Your task to perform on an android device: turn off smart reply in the gmail app Image 0: 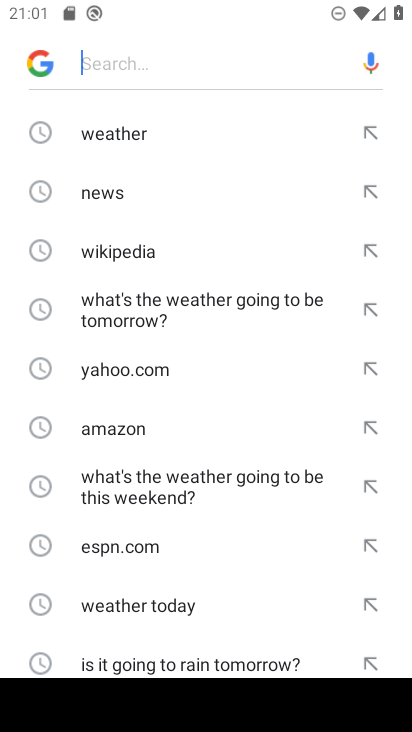
Step 0: press home button
Your task to perform on an android device: turn off smart reply in the gmail app Image 1: 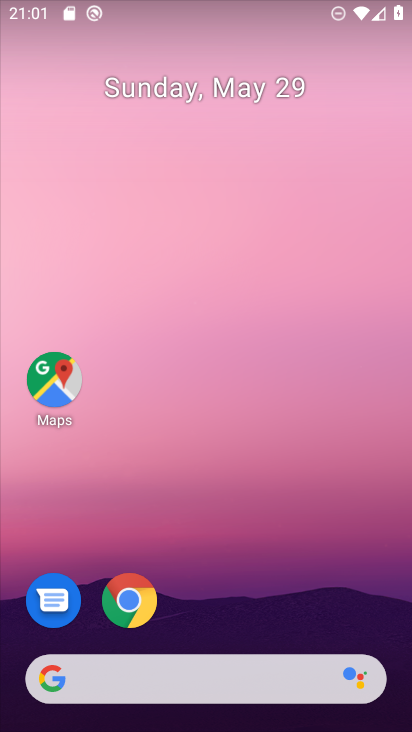
Step 1: drag from (306, 544) to (301, 91)
Your task to perform on an android device: turn off smart reply in the gmail app Image 2: 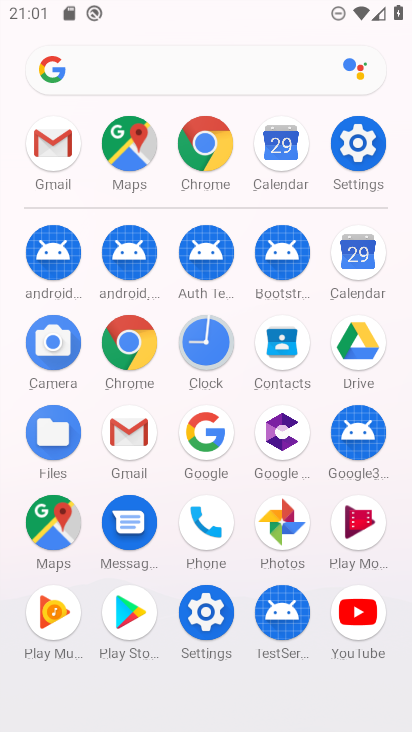
Step 2: click (108, 446)
Your task to perform on an android device: turn off smart reply in the gmail app Image 3: 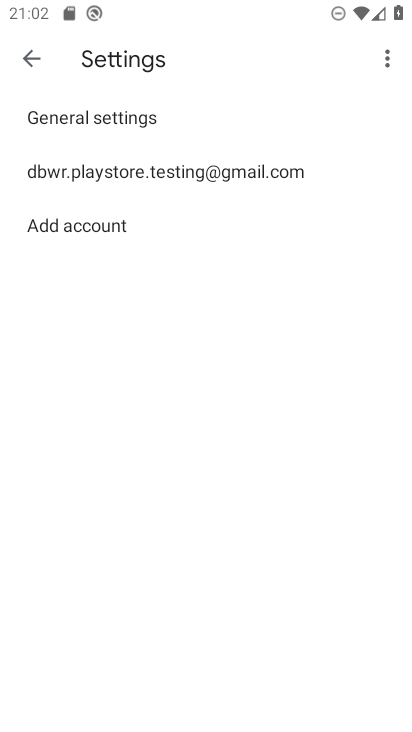
Step 3: click (239, 166)
Your task to perform on an android device: turn off smart reply in the gmail app Image 4: 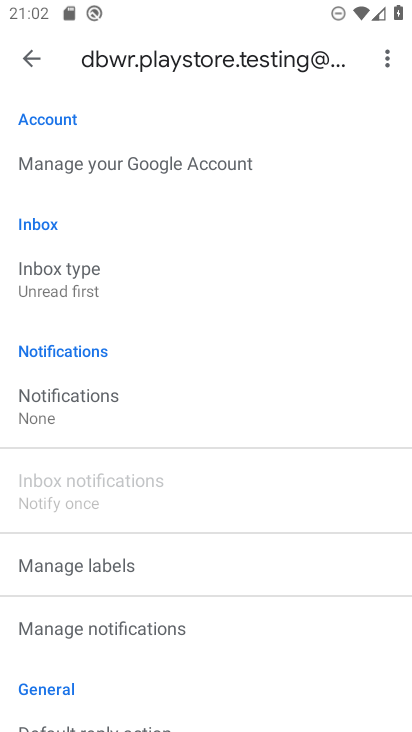
Step 4: drag from (230, 654) to (226, 348)
Your task to perform on an android device: turn off smart reply in the gmail app Image 5: 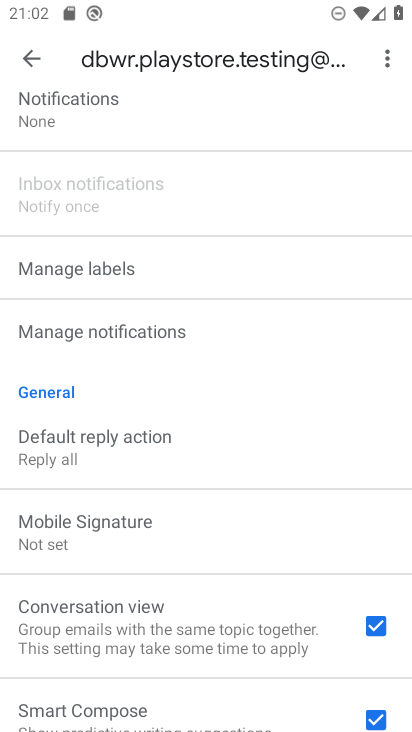
Step 5: drag from (226, 646) to (237, 300)
Your task to perform on an android device: turn off smart reply in the gmail app Image 6: 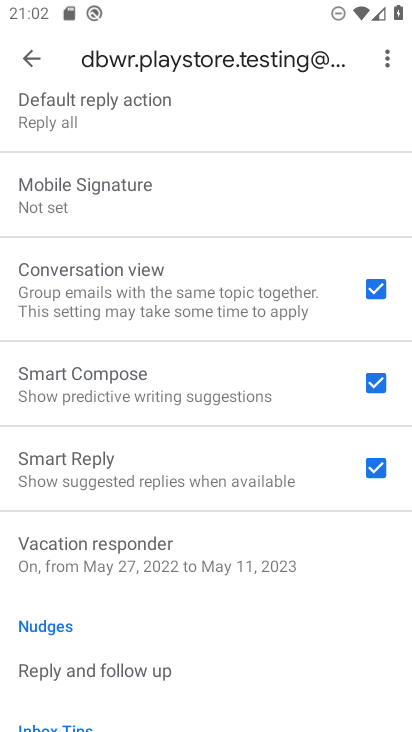
Step 6: click (373, 471)
Your task to perform on an android device: turn off smart reply in the gmail app Image 7: 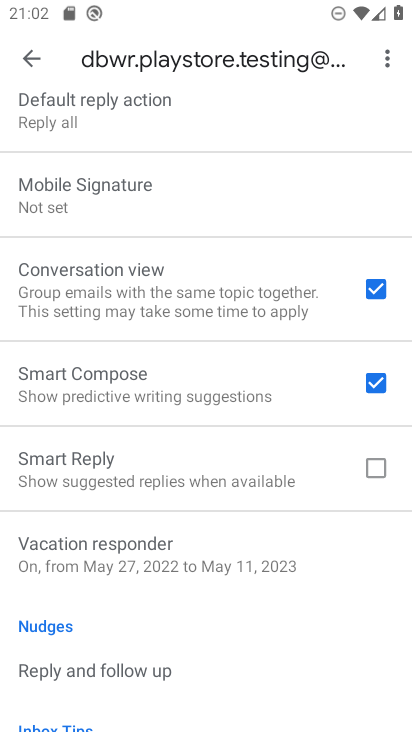
Step 7: task complete